Your task to perform on an android device: Do I have any events today? Image 0: 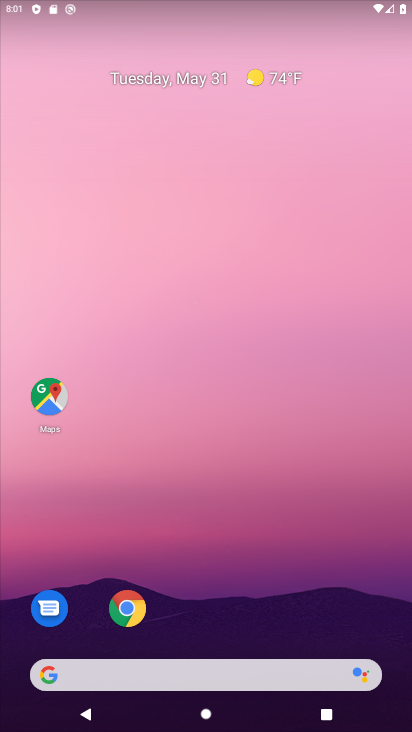
Step 0: drag from (172, 579) to (95, 17)
Your task to perform on an android device: Do I have any events today? Image 1: 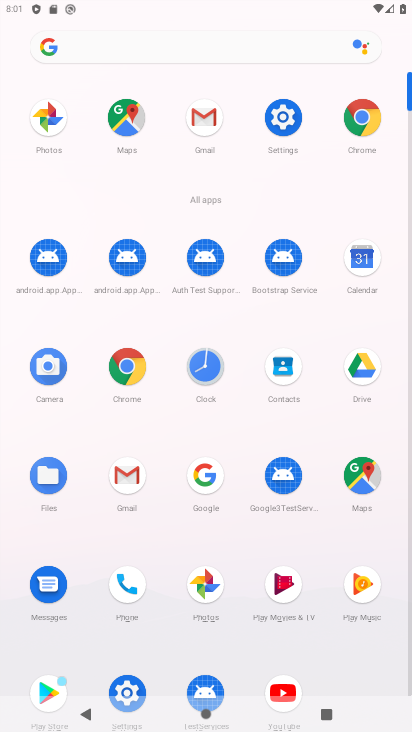
Step 1: click (360, 267)
Your task to perform on an android device: Do I have any events today? Image 2: 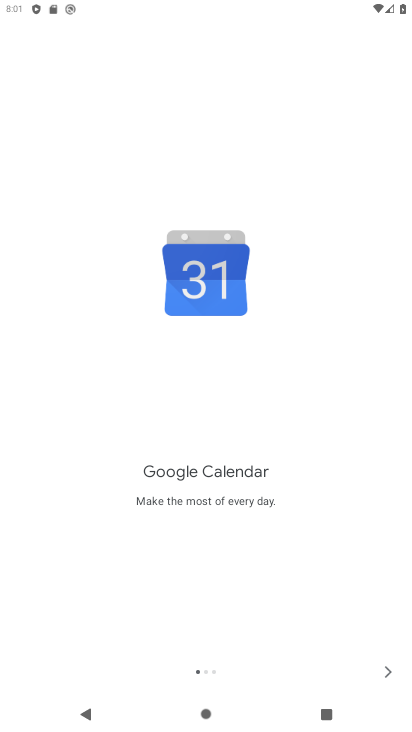
Step 2: click (382, 663)
Your task to perform on an android device: Do I have any events today? Image 3: 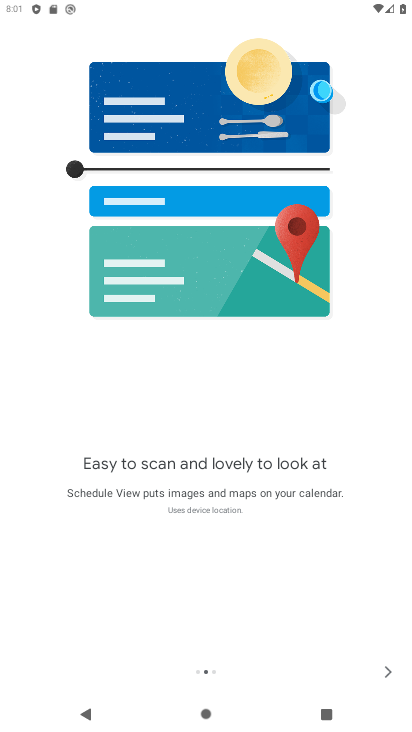
Step 3: click (381, 665)
Your task to perform on an android device: Do I have any events today? Image 4: 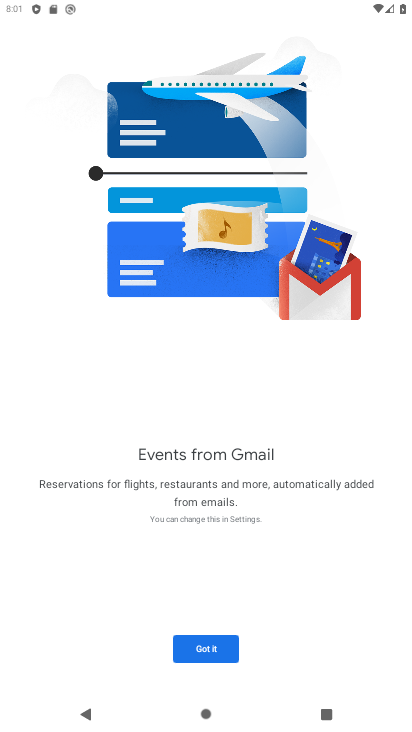
Step 4: press home button
Your task to perform on an android device: Do I have any events today? Image 5: 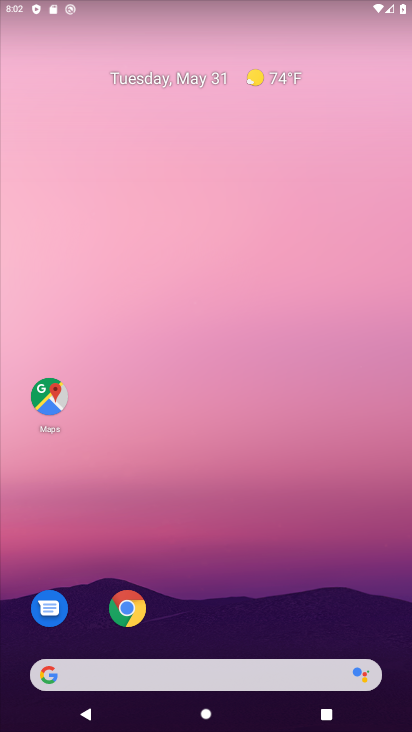
Step 5: drag from (203, 653) to (164, 8)
Your task to perform on an android device: Do I have any events today? Image 6: 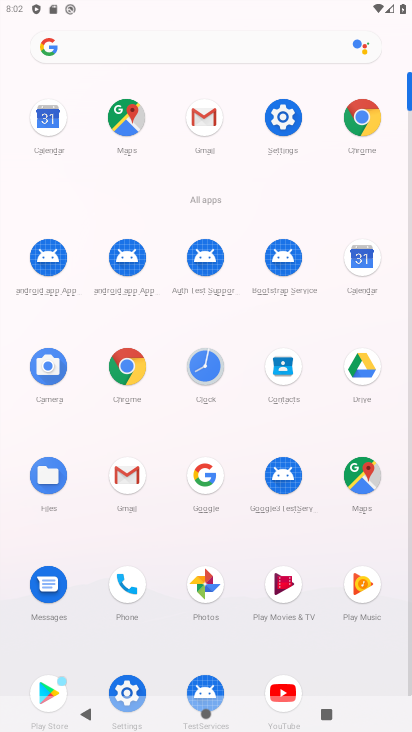
Step 6: click (360, 275)
Your task to perform on an android device: Do I have any events today? Image 7: 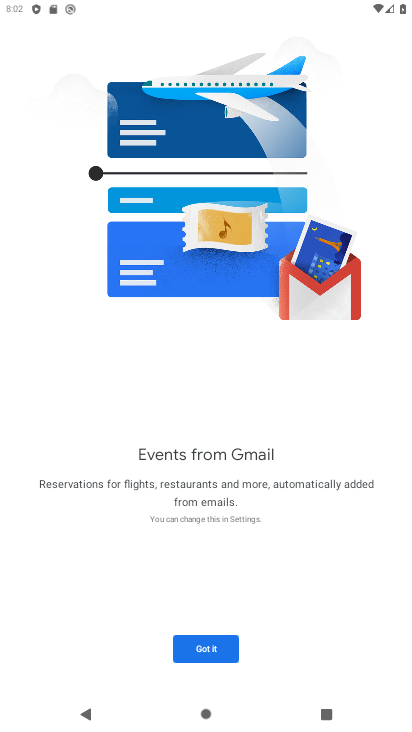
Step 7: click (225, 642)
Your task to perform on an android device: Do I have any events today? Image 8: 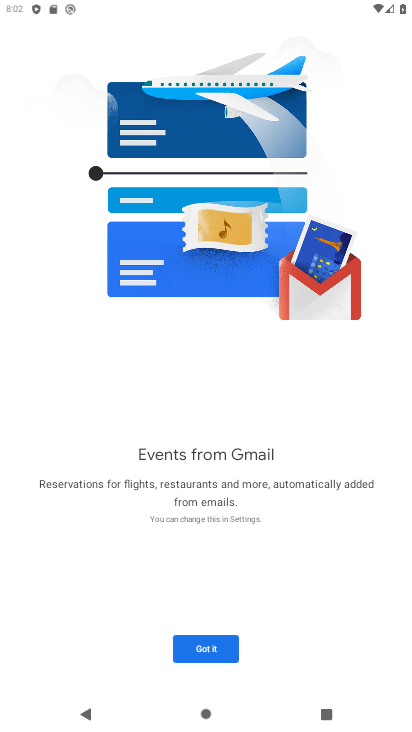
Step 8: press home button
Your task to perform on an android device: Do I have any events today? Image 9: 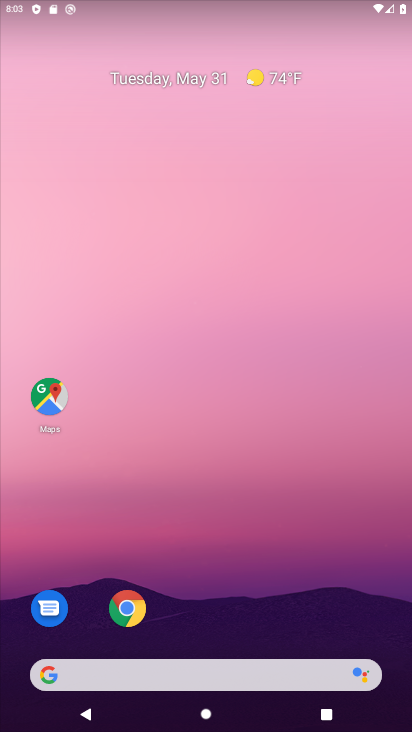
Step 9: drag from (228, 660) to (404, 582)
Your task to perform on an android device: Do I have any events today? Image 10: 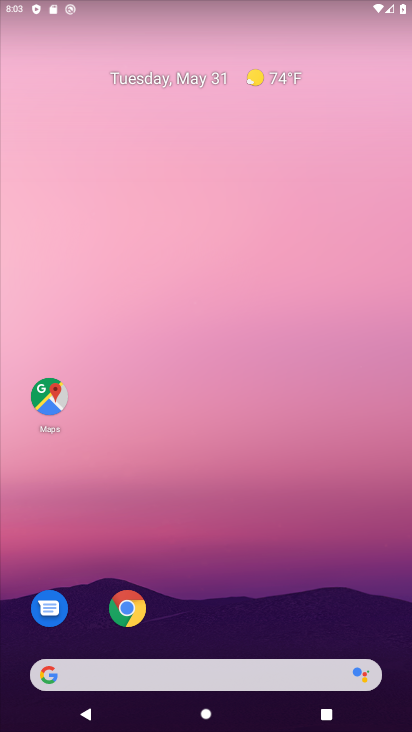
Step 10: drag from (201, 653) to (325, 70)
Your task to perform on an android device: Do I have any events today? Image 11: 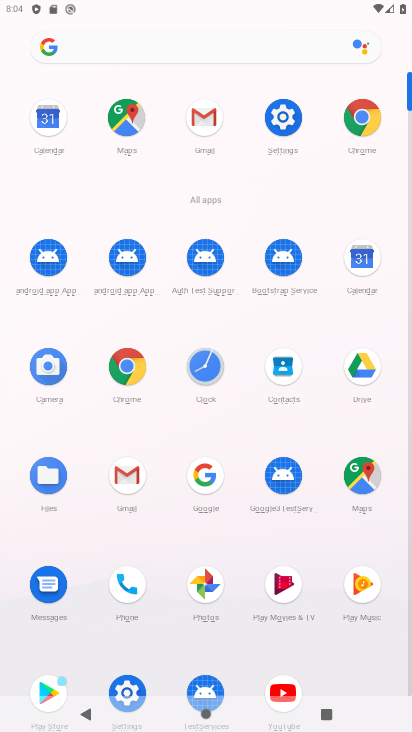
Step 11: click (354, 272)
Your task to perform on an android device: Do I have any events today? Image 12: 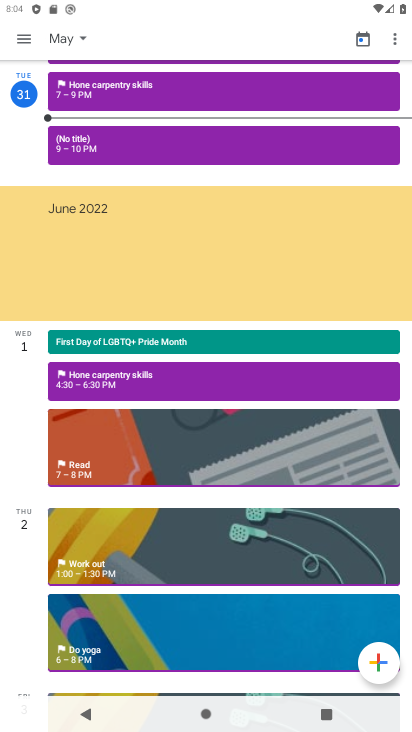
Step 12: click (25, 99)
Your task to perform on an android device: Do I have any events today? Image 13: 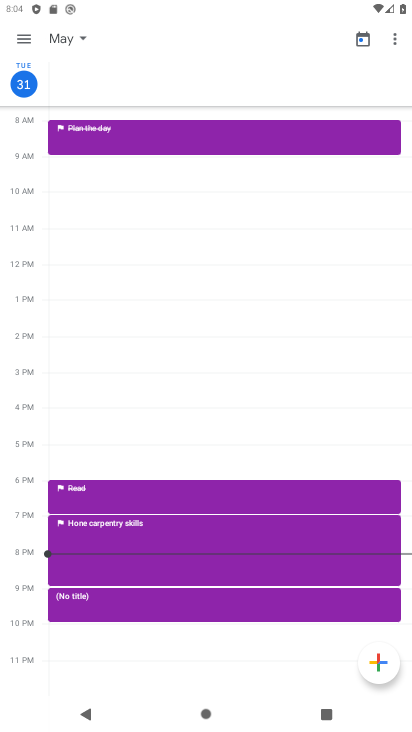
Step 13: task complete